Your task to perform on an android device: turn off location Image 0: 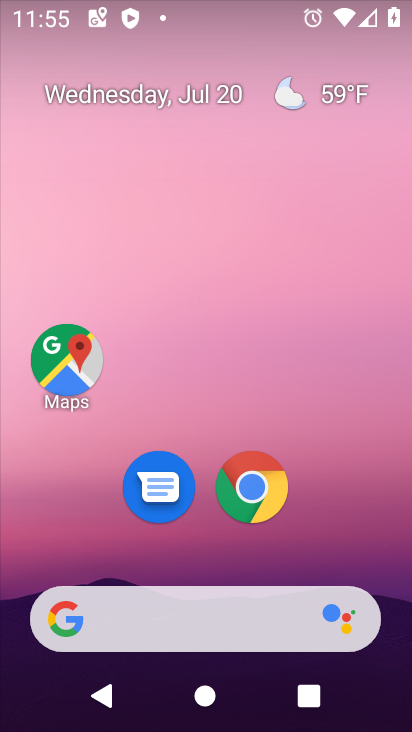
Step 0: drag from (351, 531) to (338, 92)
Your task to perform on an android device: turn off location Image 1: 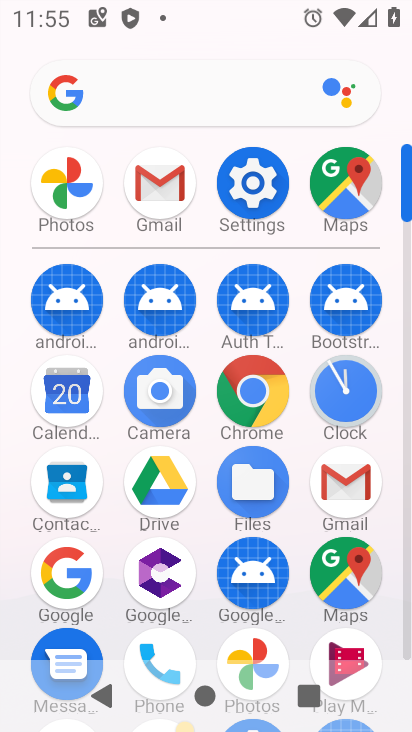
Step 1: click (266, 202)
Your task to perform on an android device: turn off location Image 2: 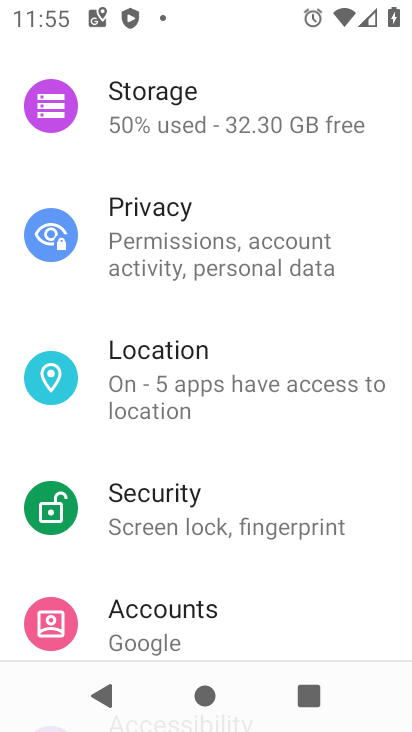
Step 2: drag from (337, 170) to (377, 284)
Your task to perform on an android device: turn off location Image 3: 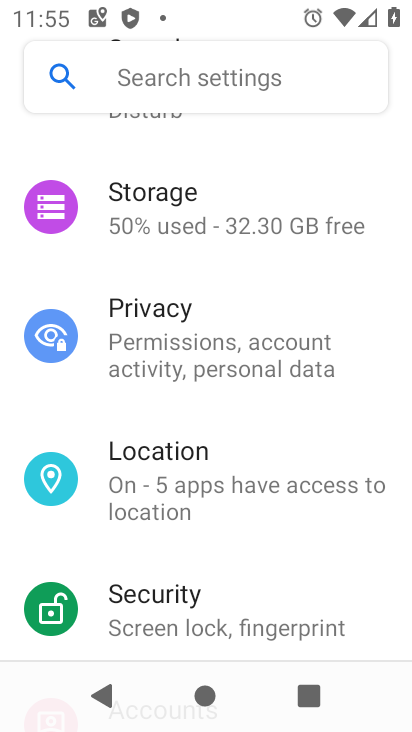
Step 3: drag from (379, 163) to (356, 267)
Your task to perform on an android device: turn off location Image 4: 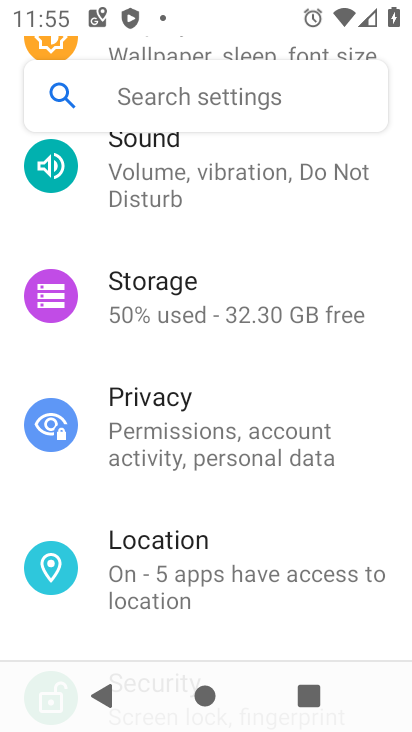
Step 4: drag from (384, 140) to (388, 269)
Your task to perform on an android device: turn off location Image 5: 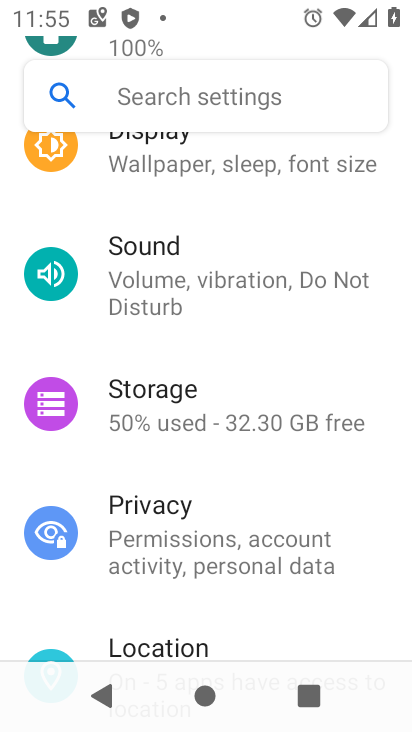
Step 5: drag from (377, 176) to (372, 325)
Your task to perform on an android device: turn off location Image 6: 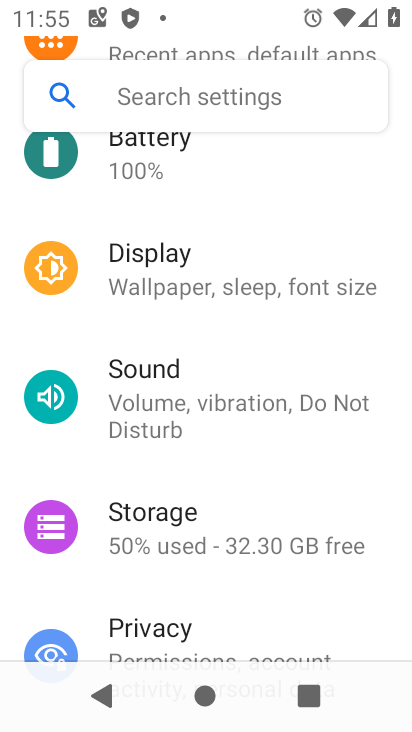
Step 6: drag from (355, 166) to (362, 292)
Your task to perform on an android device: turn off location Image 7: 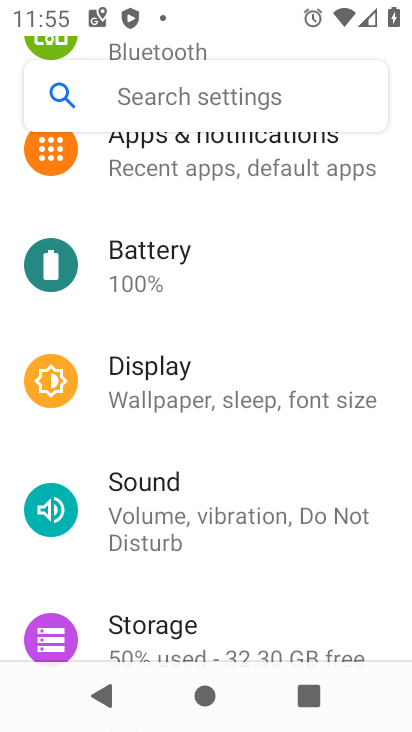
Step 7: drag from (362, 232) to (373, 357)
Your task to perform on an android device: turn off location Image 8: 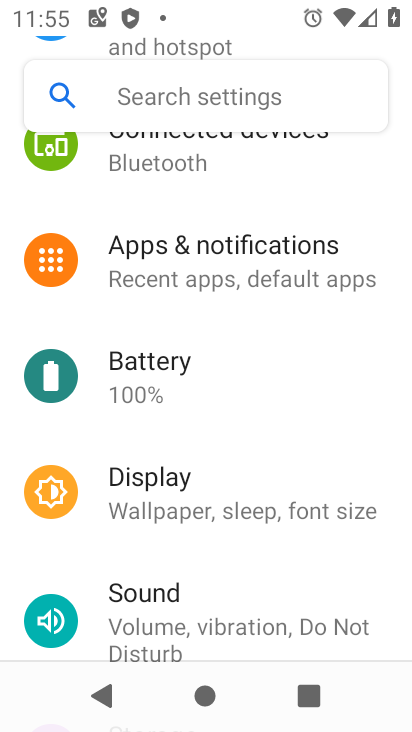
Step 8: drag from (374, 211) to (375, 323)
Your task to perform on an android device: turn off location Image 9: 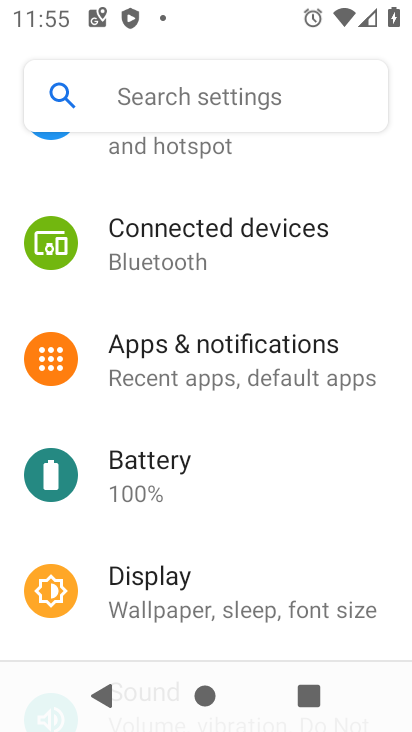
Step 9: drag from (366, 225) to (350, 327)
Your task to perform on an android device: turn off location Image 10: 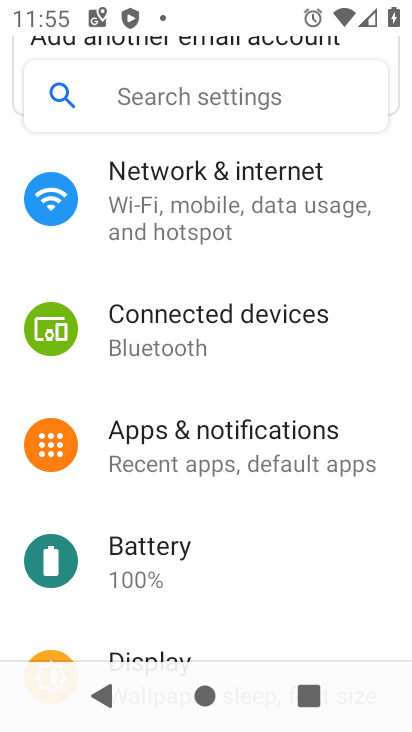
Step 10: drag from (346, 376) to (329, 322)
Your task to perform on an android device: turn off location Image 11: 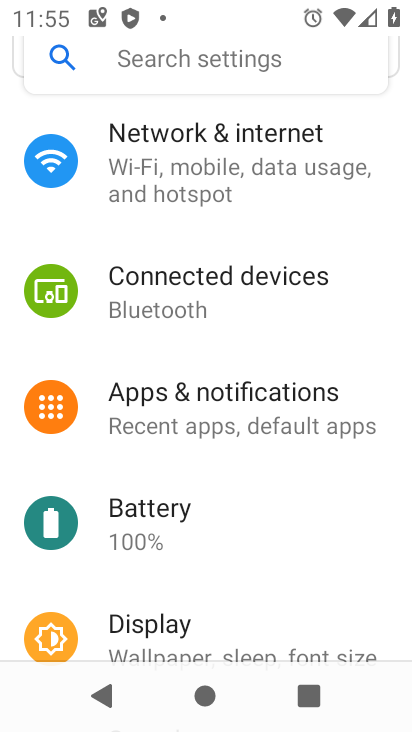
Step 11: drag from (337, 481) to (364, 399)
Your task to perform on an android device: turn off location Image 12: 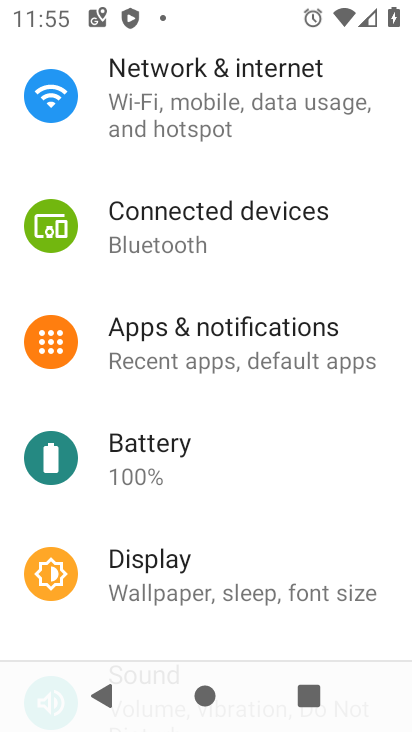
Step 12: drag from (356, 466) to (386, 364)
Your task to perform on an android device: turn off location Image 13: 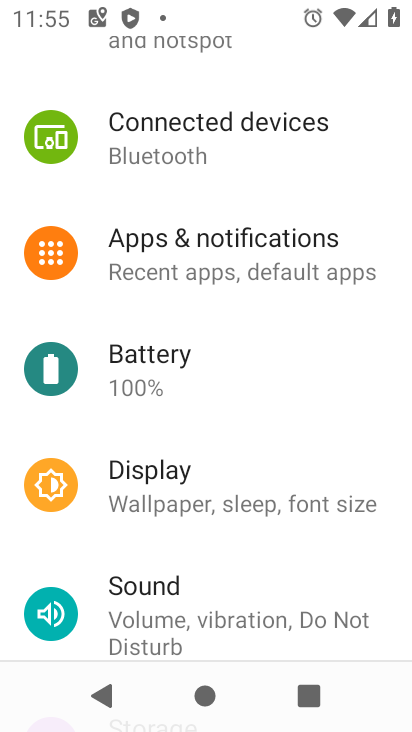
Step 13: drag from (309, 541) to (349, 338)
Your task to perform on an android device: turn off location Image 14: 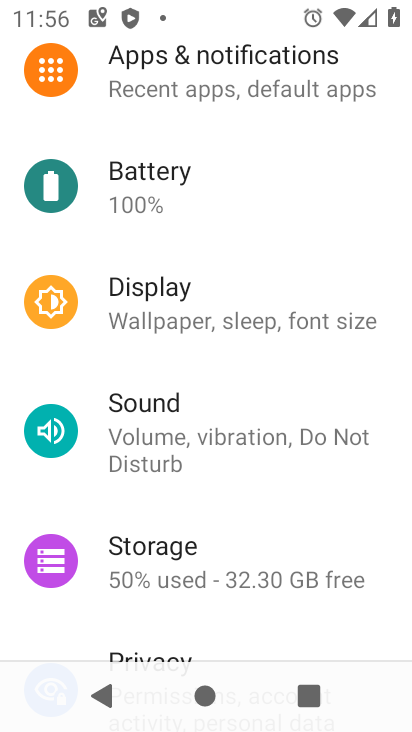
Step 14: drag from (348, 482) to (340, 359)
Your task to perform on an android device: turn off location Image 15: 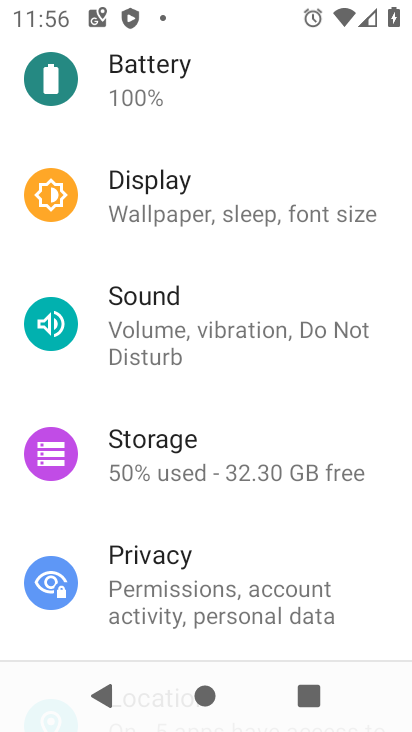
Step 15: drag from (278, 500) to (326, 319)
Your task to perform on an android device: turn off location Image 16: 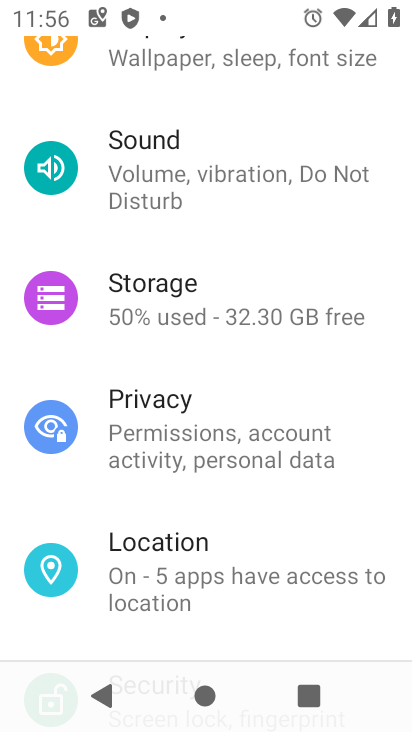
Step 16: drag from (315, 507) to (310, 358)
Your task to perform on an android device: turn off location Image 17: 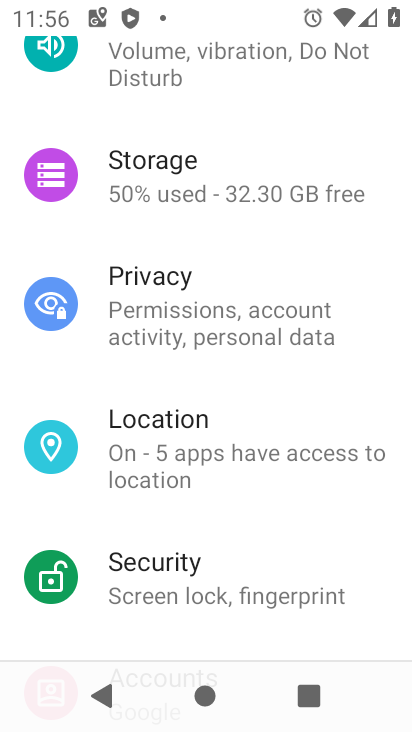
Step 17: click (270, 451)
Your task to perform on an android device: turn off location Image 18: 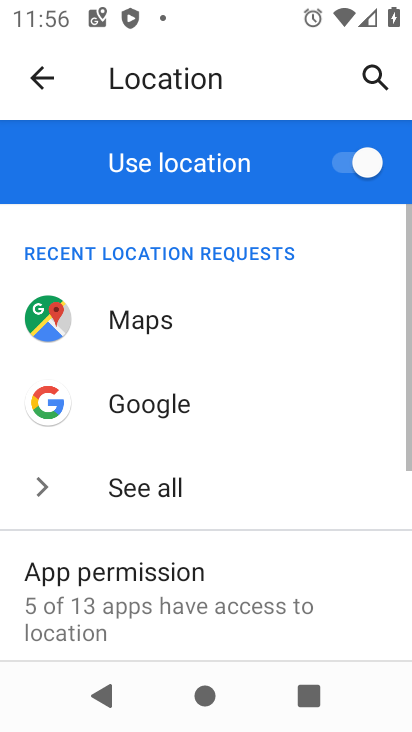
Step 18: click (378, 162)
Your task to perform on an android device: turn off location Image 19: 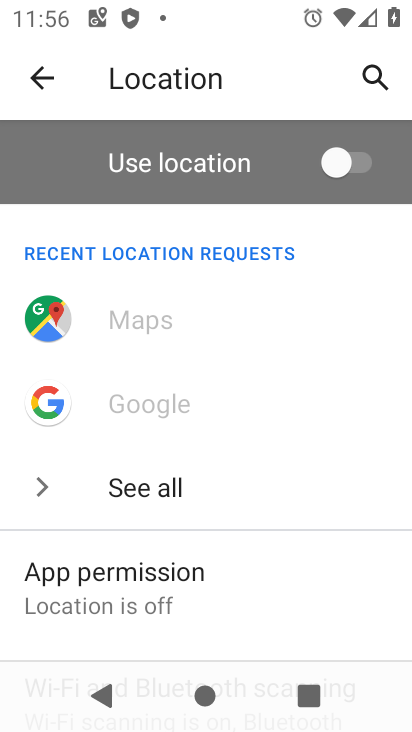
Step 19: task complete